Your task to perform on an android device: toggle translation in the chrome app Image 0: 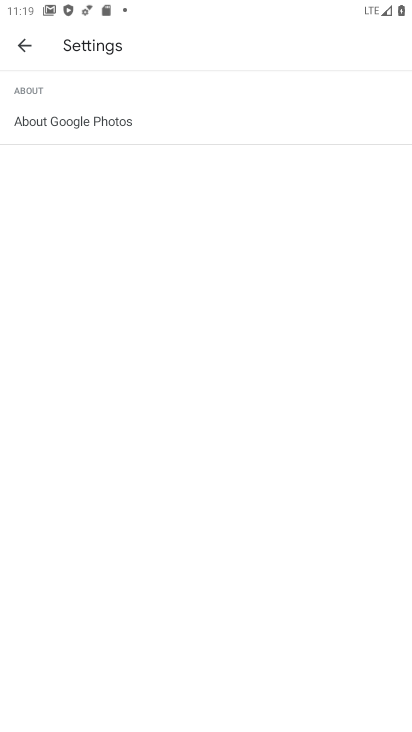
Step 0: press home button
Your task to perform on an android device: toggle translation in the chrome app Image 1: 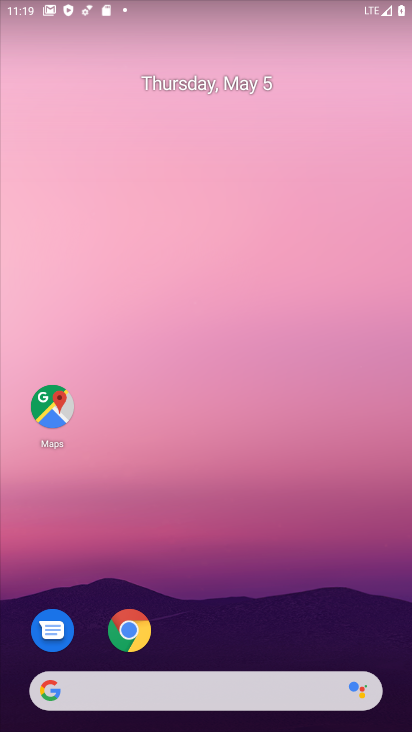
Step 1: click (132, 626)
Your task to perform on an android device: toggle translation in the chrome app Image 2: 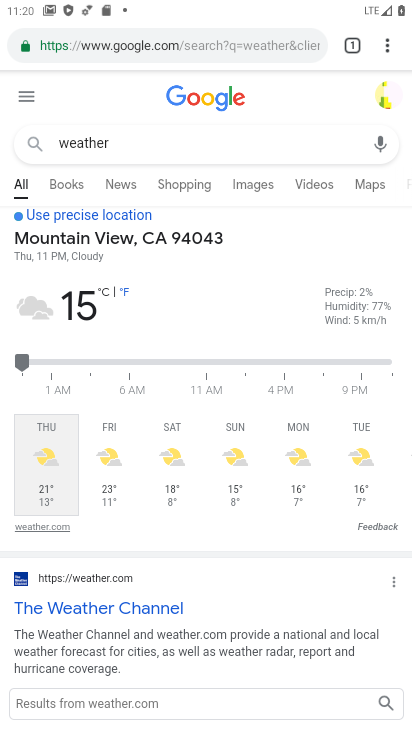
Step 2: drag from (389, 50) to (235, 549)
Your task to perform on an android device: toggle translation in the chrome app Image 3: 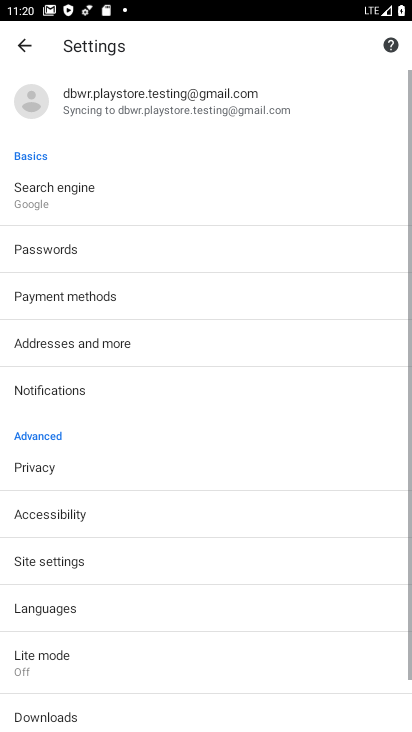
Step 3: drag from (183, 521) to (213, 218)
Your task to perform on an android device: toggle translation in the chrome app Image 4: 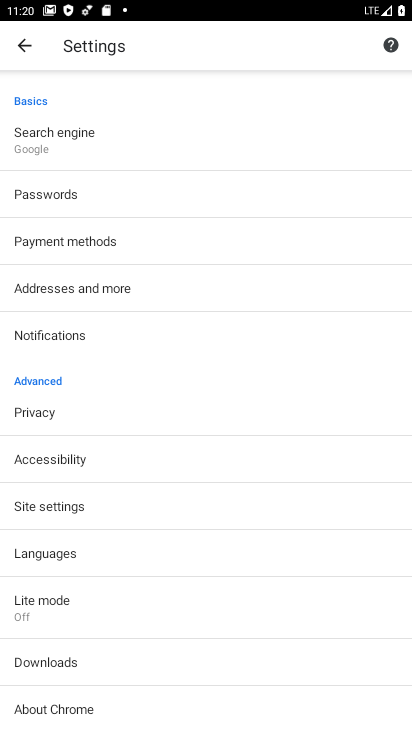
Step 4: click (70, 543)
Your task to perform on an android device: toggle translation in the chrome app Image 5: 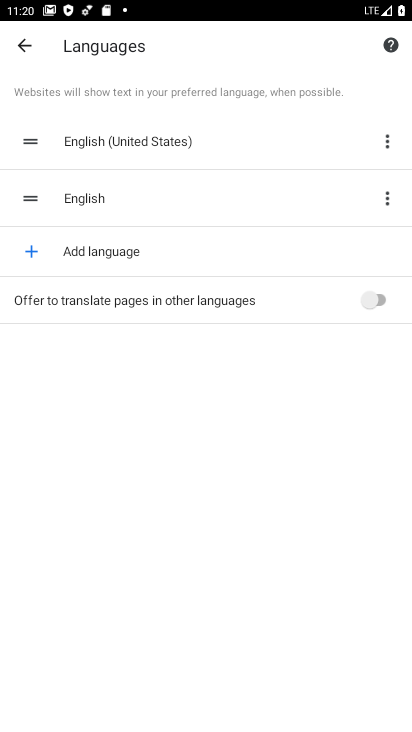
Step 5: click (365, 303)
Your task to perform on an android device: toggle translation in the chrome app Image 6: 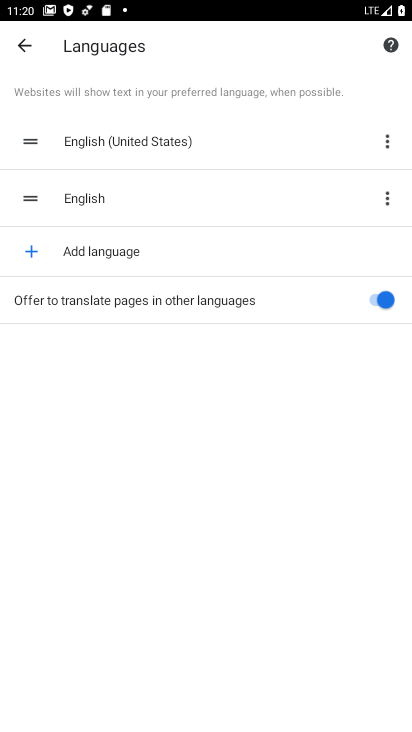
Step 6: task complete